Your task to perform on an android device: open app "Speedtest by Ookla" Image 0: 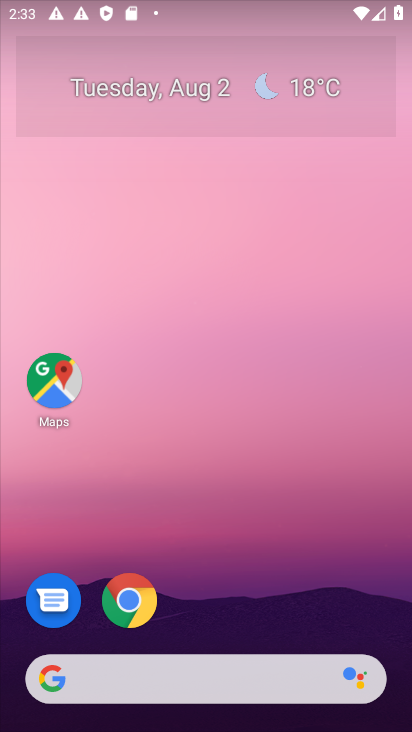
Step 0: drag from (143, 454) to (164, 145)
Your task to perform on an android device: open app "Speedtest by Ookla" Image 1: 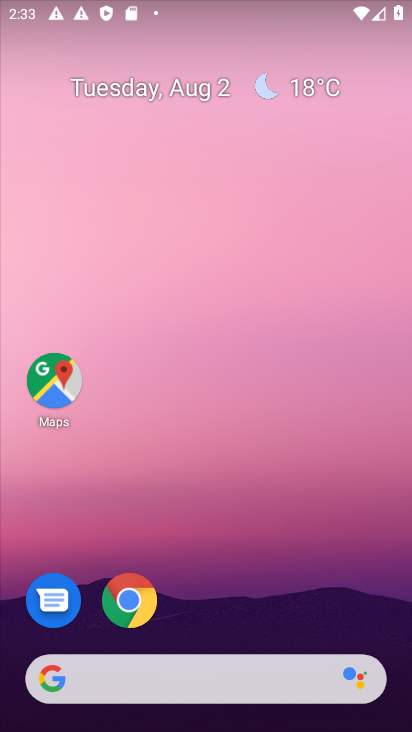
Step 1: drag from (253, 724) to (260, 115)
Your task to perform on an android device: open app "Speedtest by Ookla" Image 2: 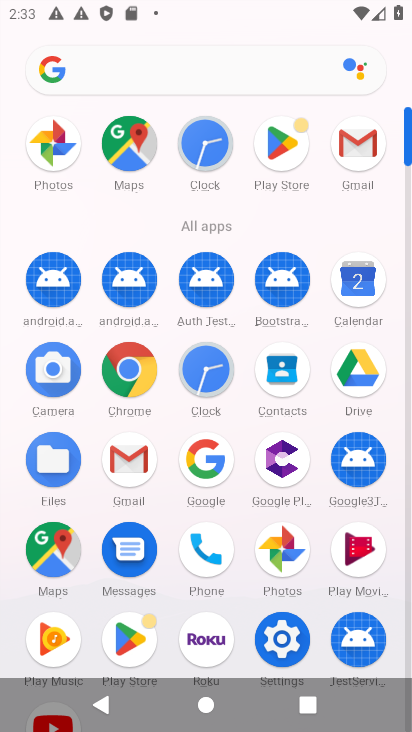
Step 2: click (279, 138)
Your task to perform on an android device: open app "Speedtest by Ookla" Image 3: 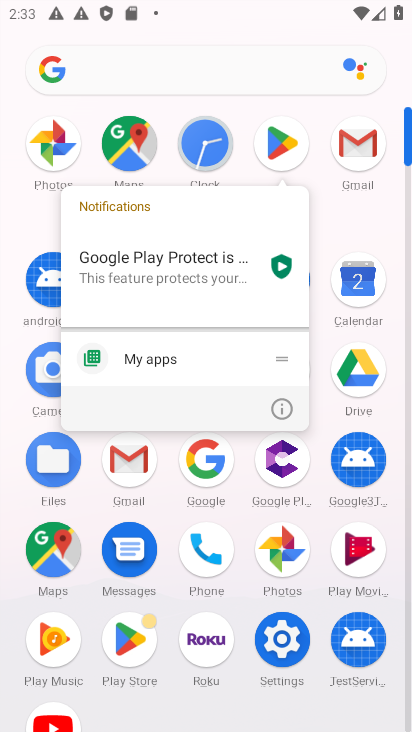
Step 3: click (283, 137)
Your task to perform on an android device: open app "Speedtest by Ookla" Image 4: 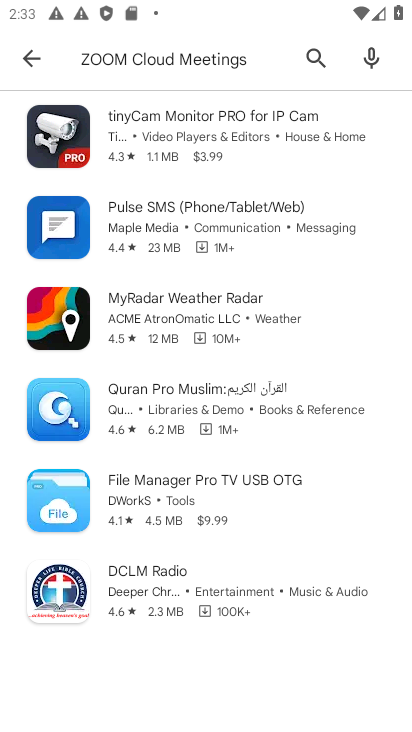
Step 4: click (309, 55)
Your task to perform on an android device: open app "Speedtest by Ookla" Image 5: 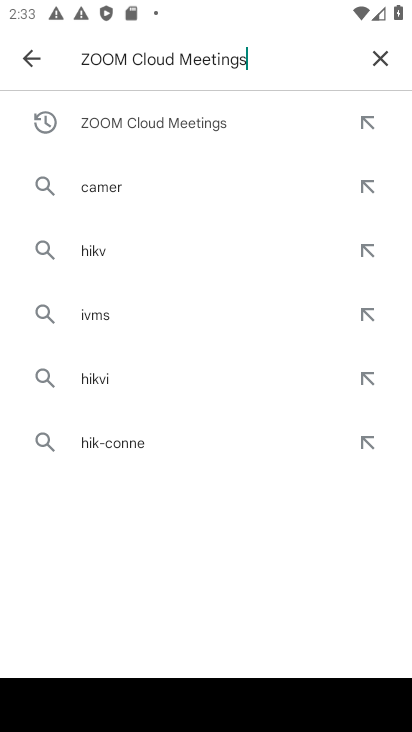
Step 5: click (382, 61)
Your task to perform on an android device: open app "Speedtest by Ookla" Image 6: 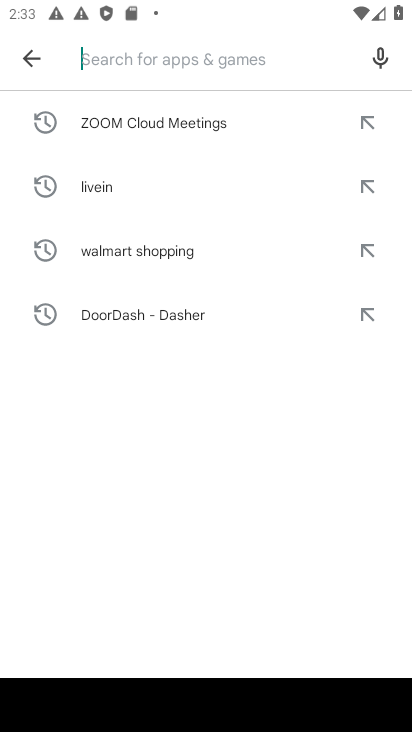
Step 6: type "speedtest by ook"
Your task to perform on an android device: open app "Speedtest by Ookla" Image 7: 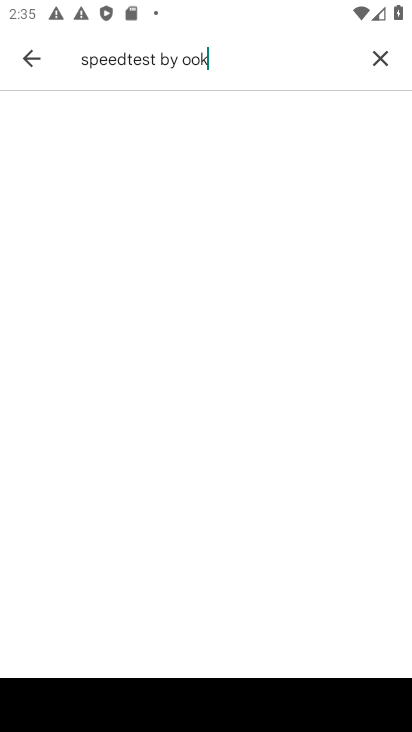
Step 7: type "la"
Your task to perform on an android device: open app "Speedtest by Ookla" Image 8: 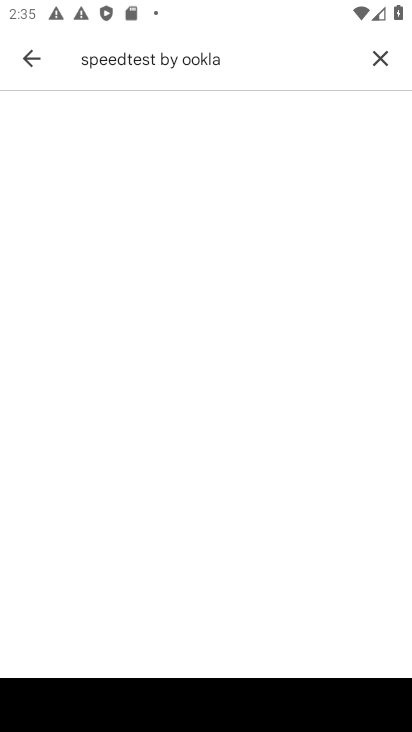
Step 8: press enter
Your task to perform on an android device: open app "Speedtest by Ookla" Image 9: 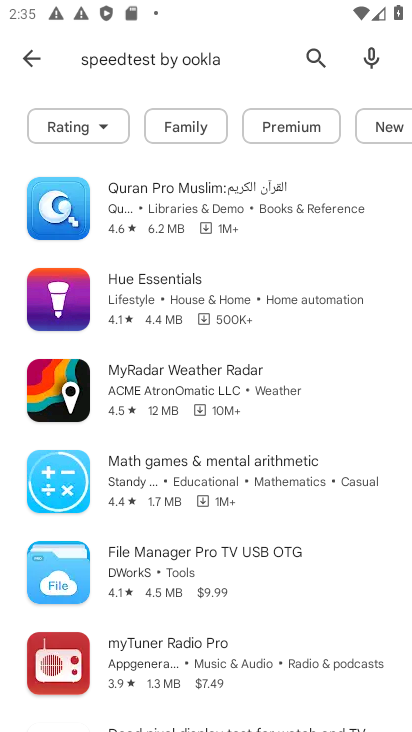
Step 9: task complete